Your task to perform on an android device: Check the weather Image 0: 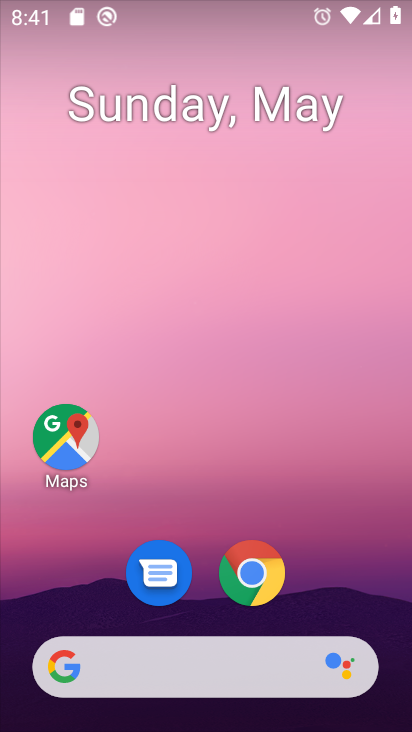
Step 0: click (159, 669)
Your task to perform on an android device: Check the weather Image 1: 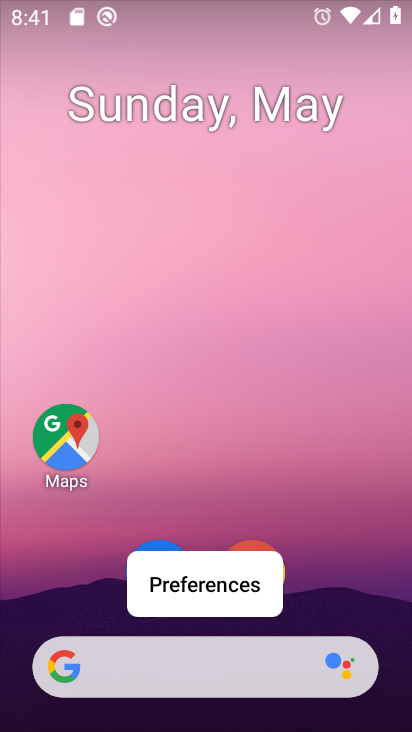
Step 1: click (145, 672)
Your task to perform on an android device: Check the weather Image 2: 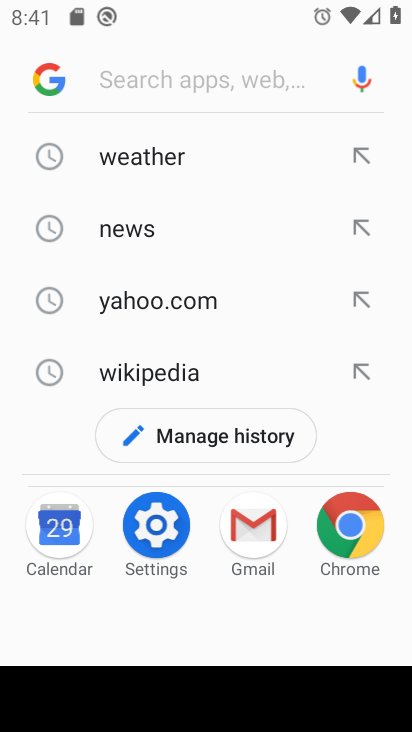
Step 2: click (159, 154)
Your task to perform on an android device: Check the weather Image 3: 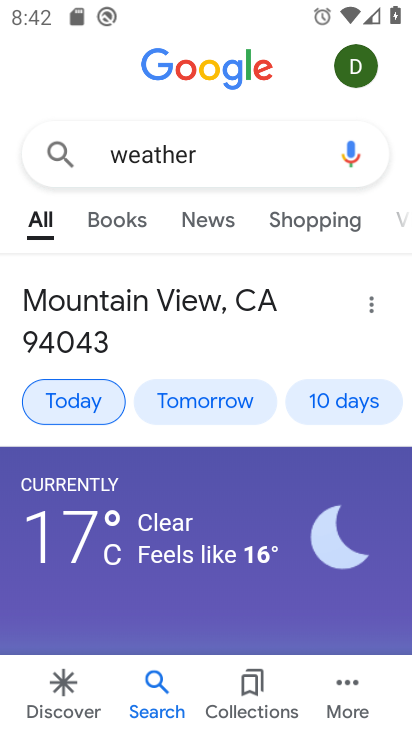
Step 3: click (71, 393)
Your task to perform on an android device: Check the weather Image 4: 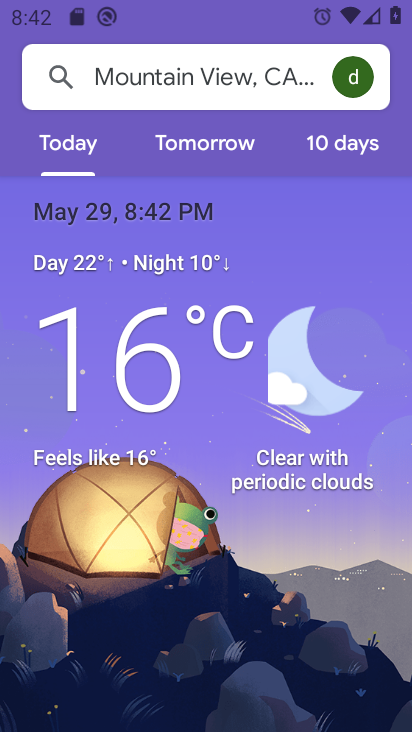
Step 4: task complete